Your task to perform on an android device: Open privacy settings Image 0: 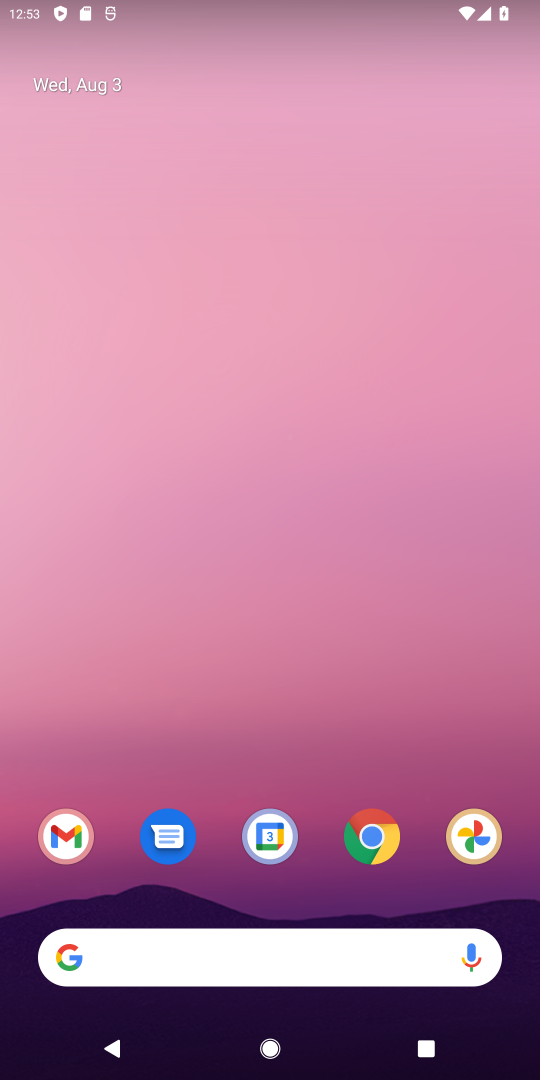
Step 0: drag from (242, 841) to (271, 277)
Your task to perform on an android device: Open privacy settings Image 1: 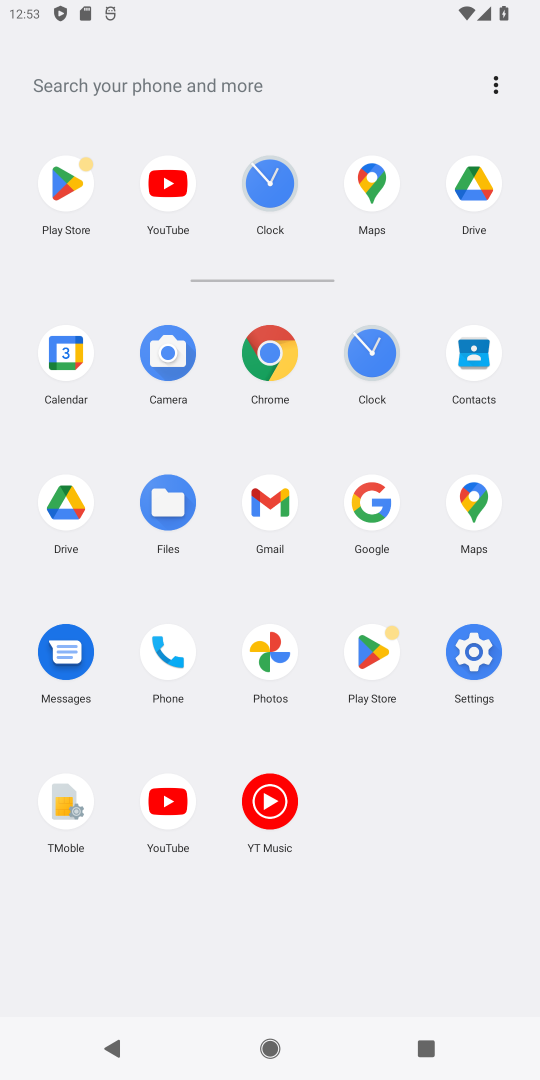
Step 1: click (469, 663)
Your task to perform on an android device: Open privacy settings Image 2: 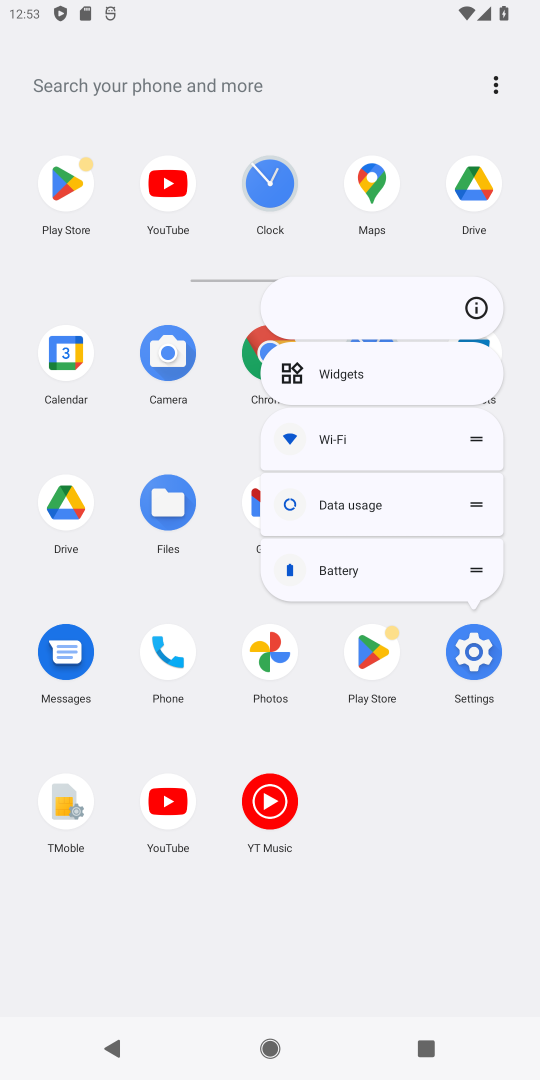
Step 2: click (464, 300)
Your task to perform on an android device: Open privacy settings Image 3: 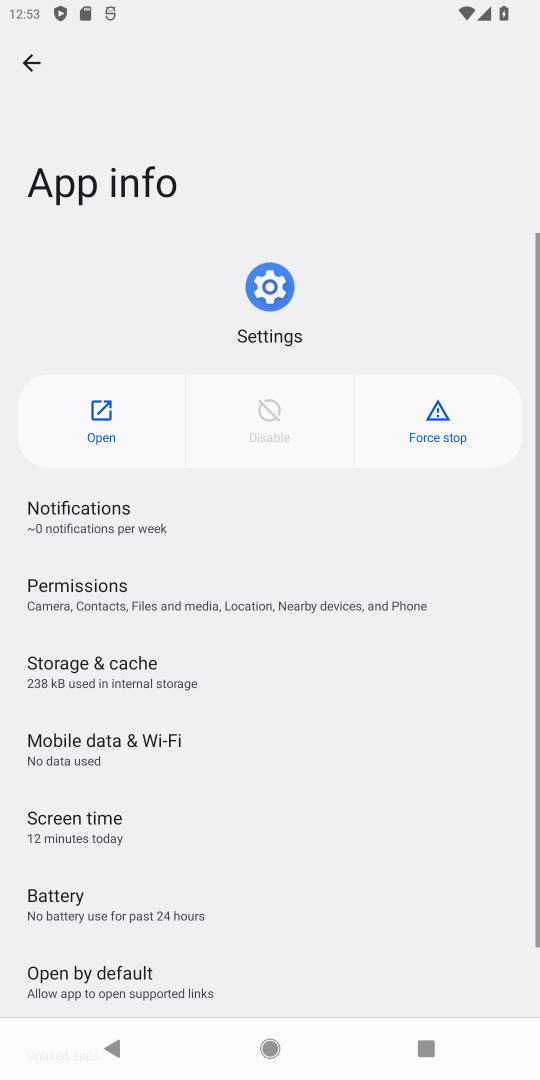
Step 3: click (104, 411)
Your task to perform on an android device: Open privacy settings Image 4: 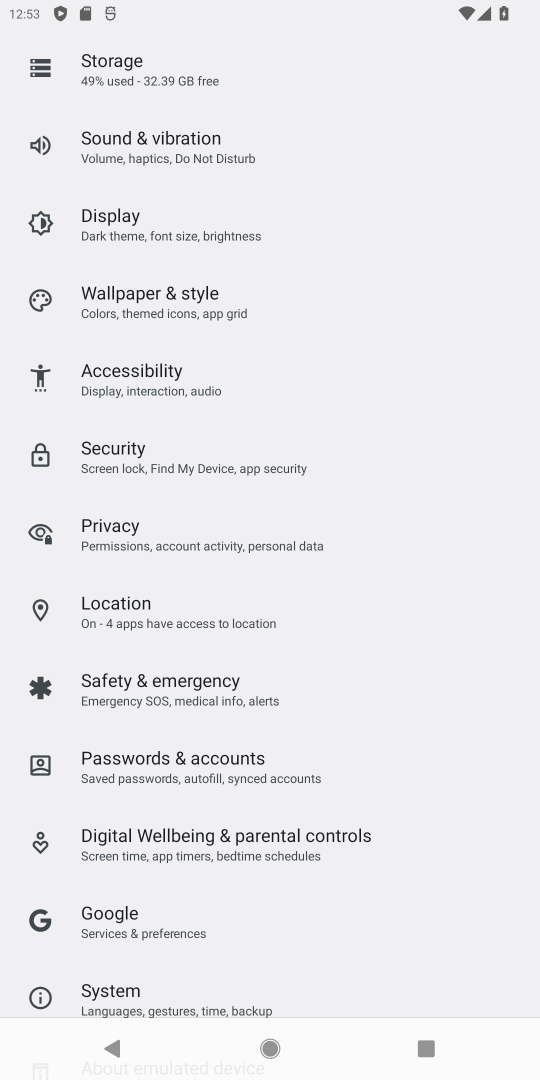
Step 4: click (172, 531)
Your task to perform on an android device: Open privacy settings Image 5: 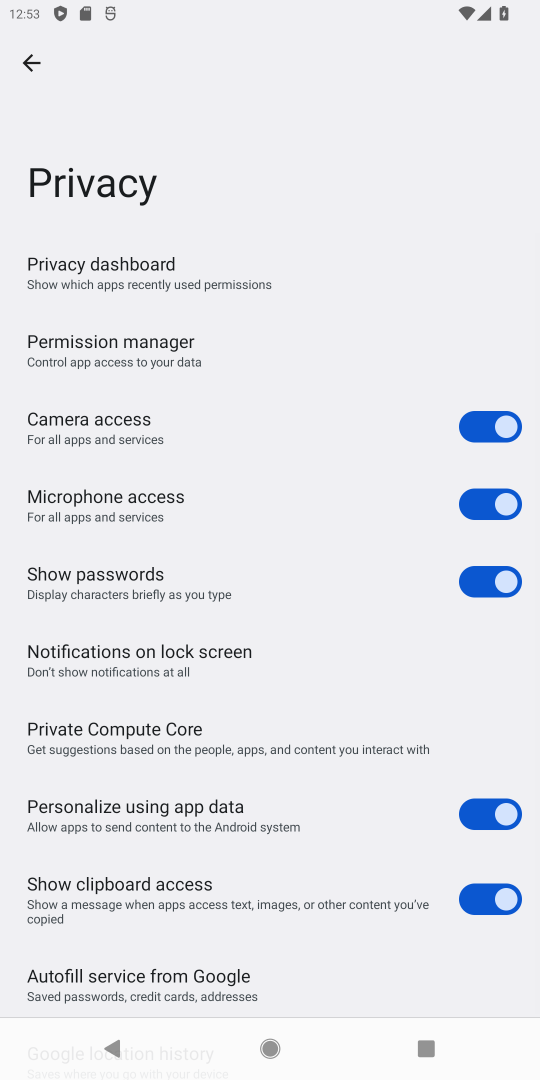
Step 5: task complete